Your task to perform on an android device: change timer sound Image 0: 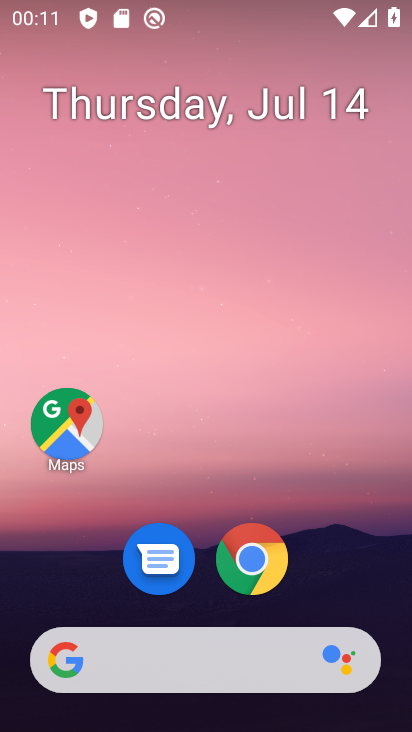
Step 0: drag from (280, 485) to (256, 6)
Your task to perform on an android device: change timer sound Image 1: 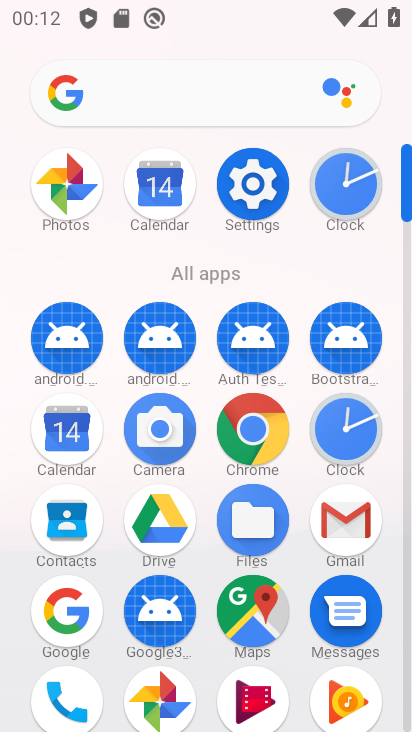
Step 1: click (341, 179)
Your task to perform on an android device: change timer sound Image 2: 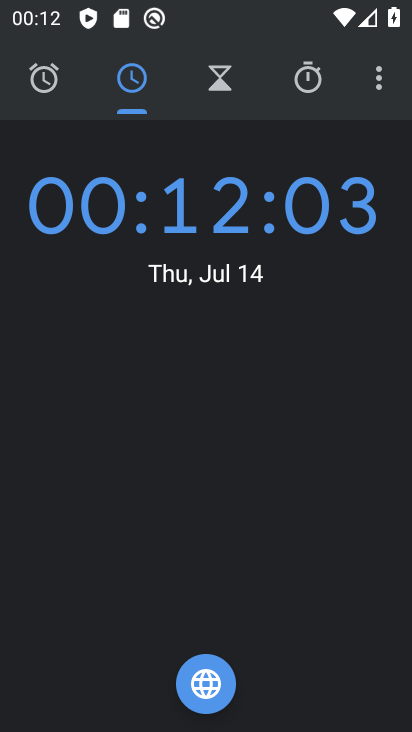
Step 2: click (376, 87)
Your task to perform on an android device: change timer sound Image 3: 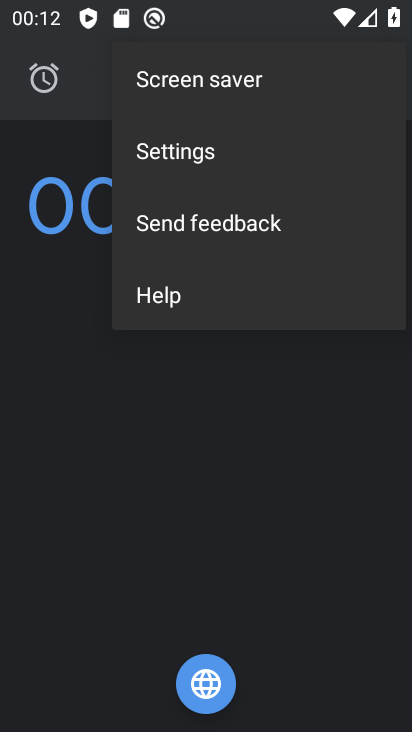
Step 3: click (304, 158)
Your task to perform on an android device: change timer sound Image 4: 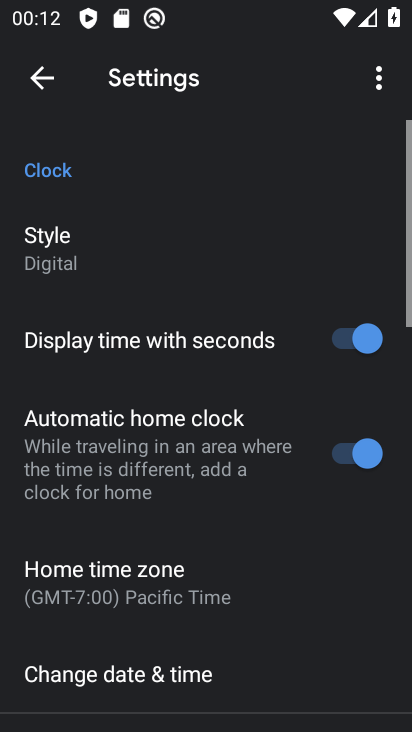
Step 4: drag from (276, 505) to (266, 10)
Your task to perform on an android device: change timer sound Image 5: 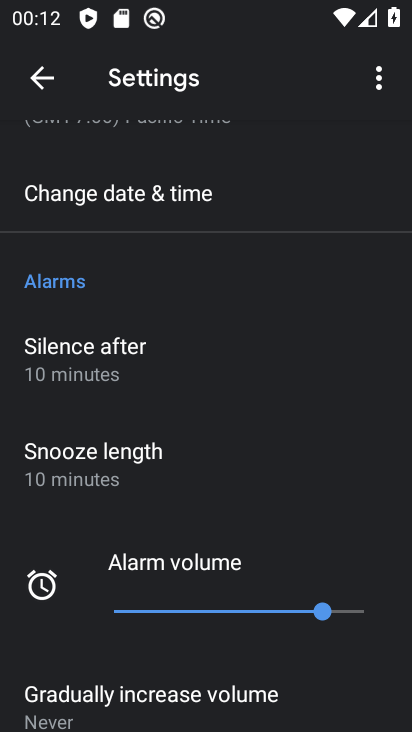
Step 5: drag from (220, 422) to (245, 17)
Your task to perform on an android device: change timer sound Image 6: 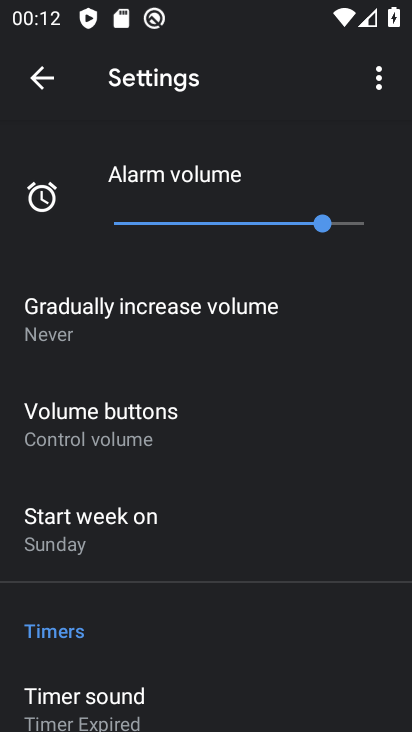
Step 6: drag from (179, 459) to (203, 82)
Your task to perform on an android device: change timer sound Image 7: 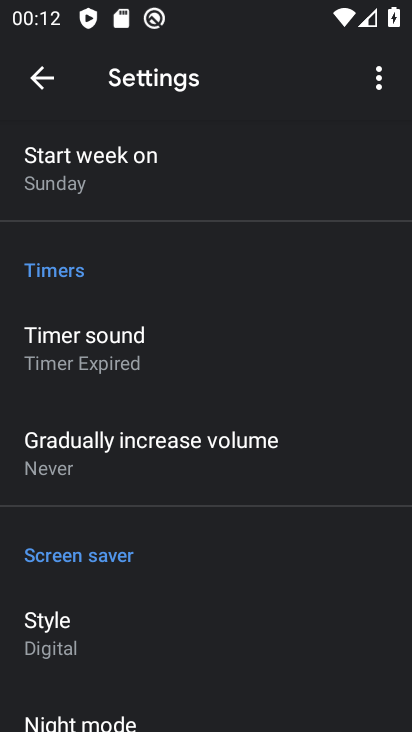
Step 7: click (123, 342)
Your task to perform on an android device: change timer sound Image 8: 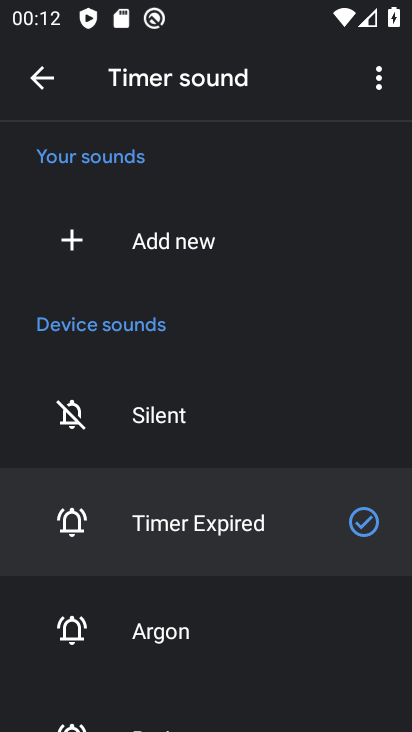
Step 8: click (153, 630)
Your task to perform on an android device: change timer sound Image 9: 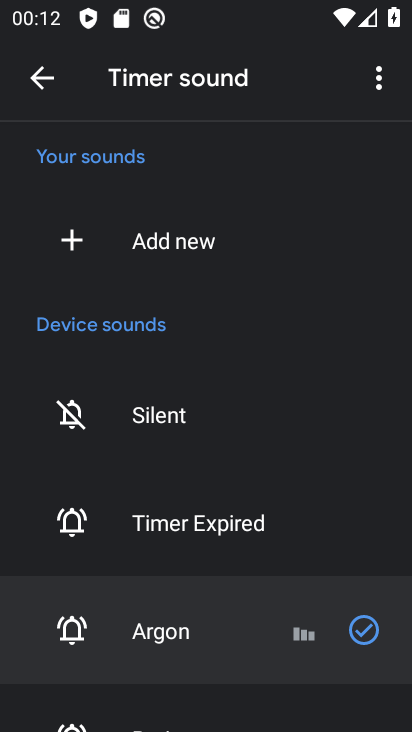
Step 9: task complete